Your task to perform on an android device: Add "razer blade" to the cart on walmart Image 0: 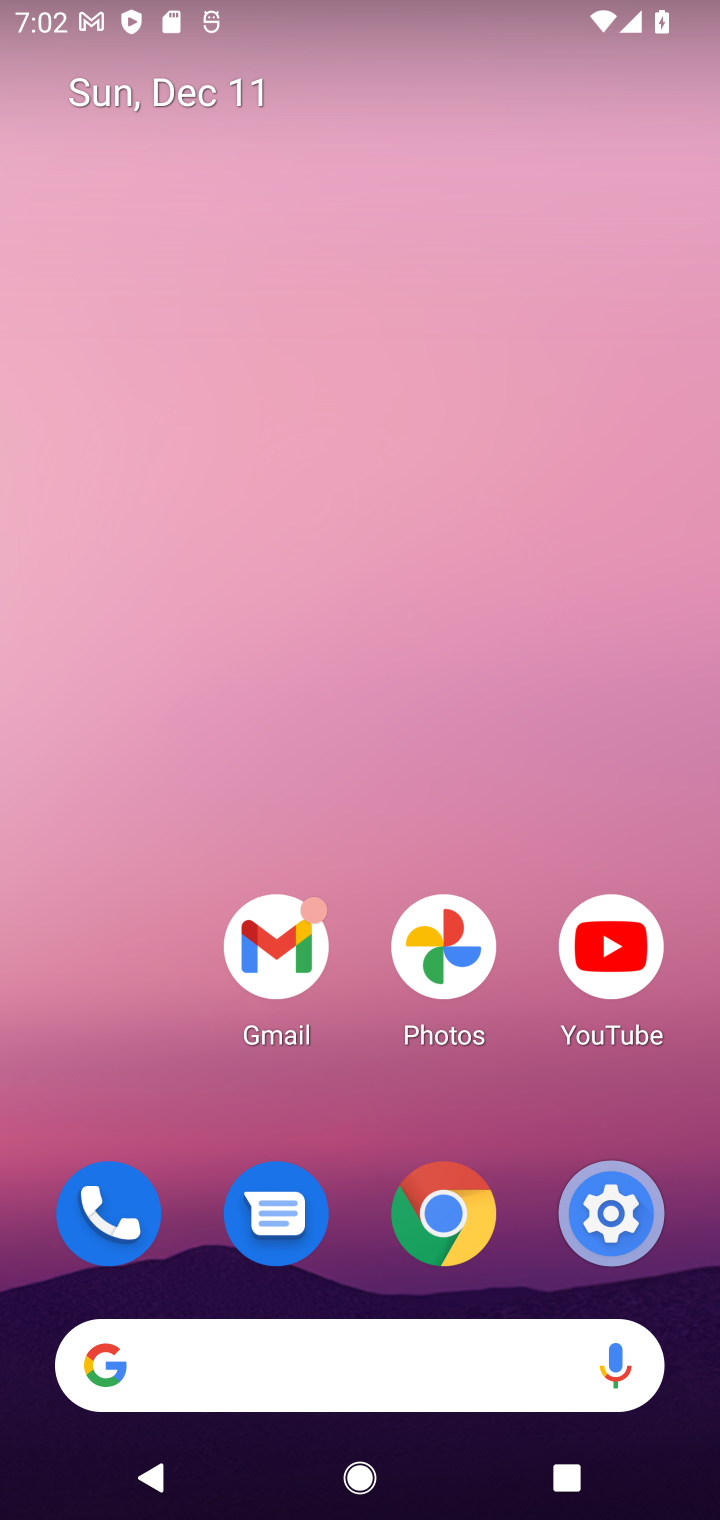
Step 0: click (437, 1327)
Your task to perform on an android device: Add "razer blade" to the cart on walmart Image 1: 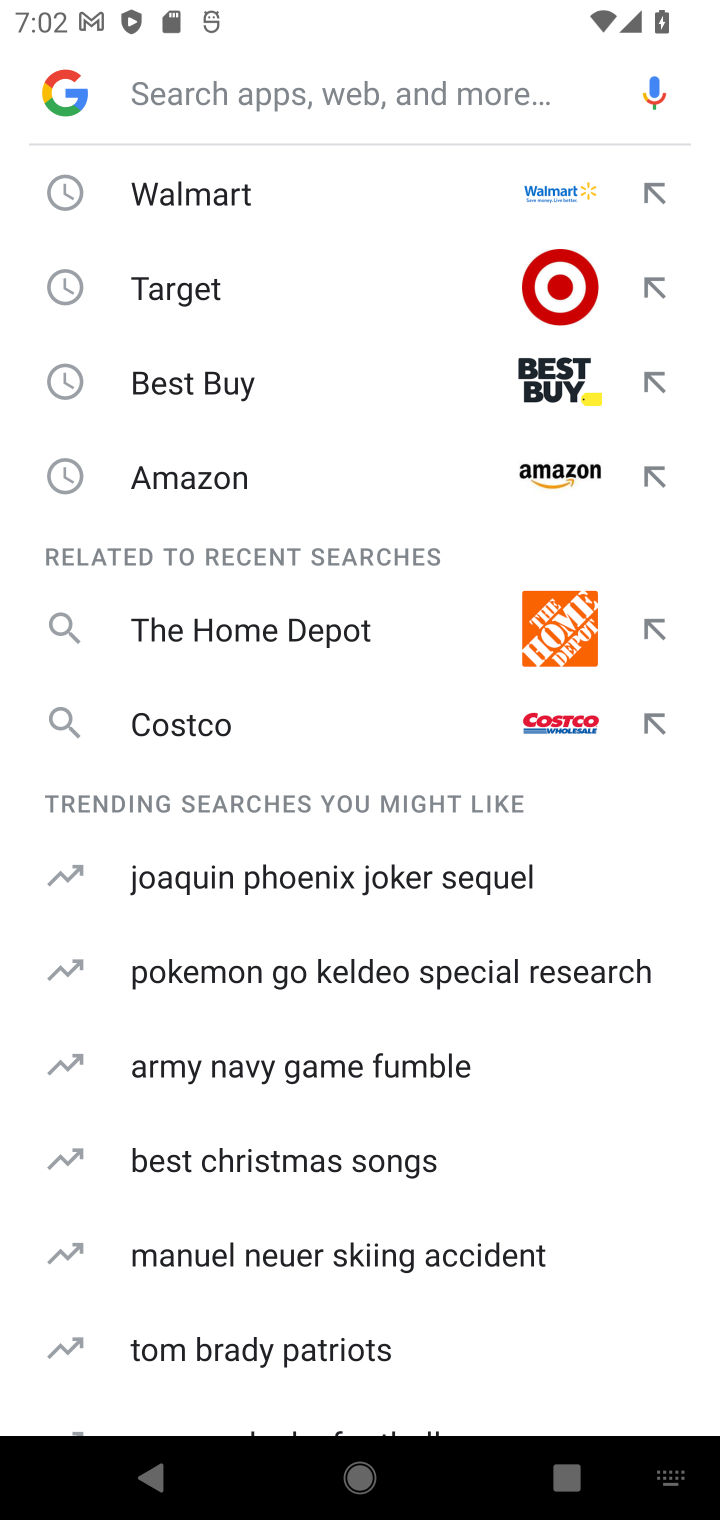
Step 1: click (162, 224)
Your task to perform on an android device: Add "razer blade" to the cart on walmart Image 2: 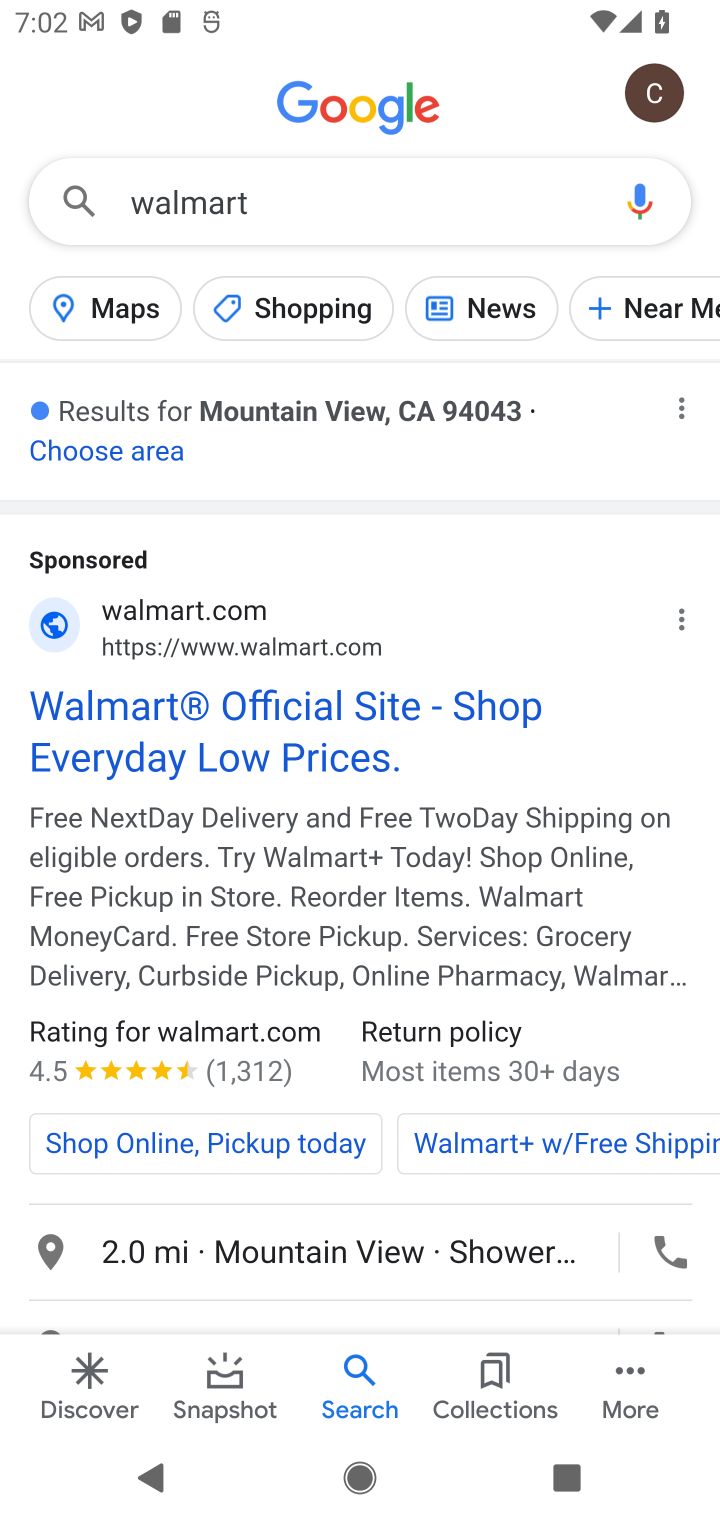
Step 2: click (247, 711)
Your task to perform on an android device: Add "razer blade" to the cart on walmart Image 3: 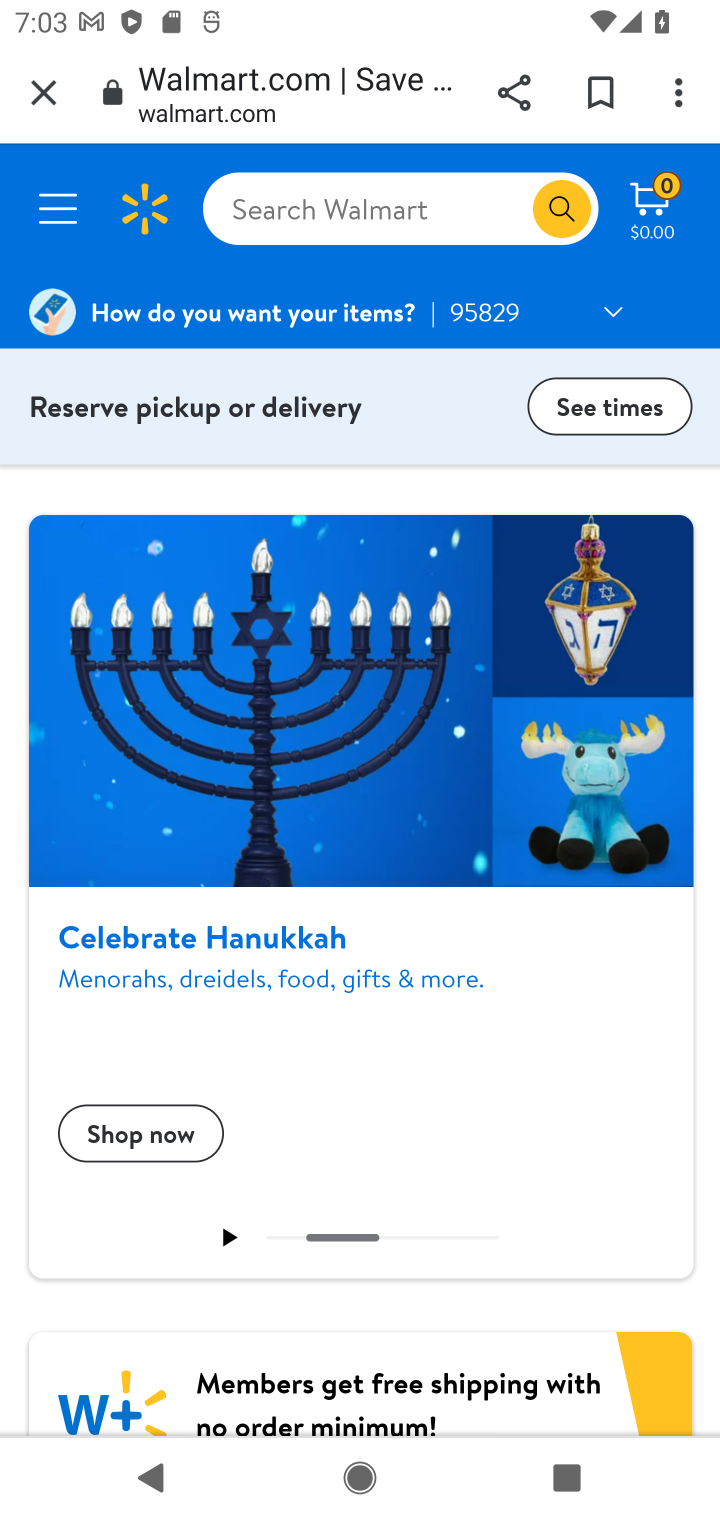
Step 3: click (369, 211)
Your task to perform on an android device: Add "razer blade" to the cart on walmart Image 4: 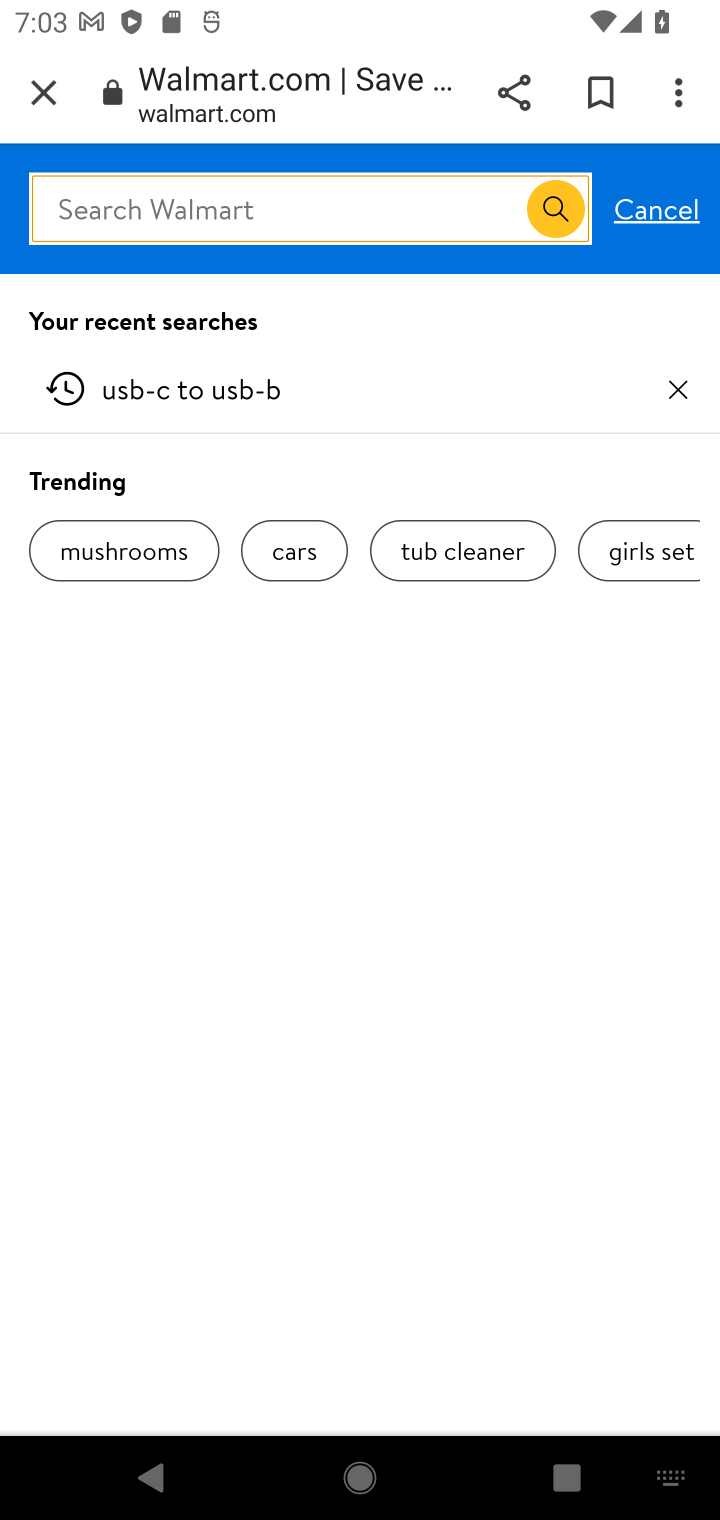
Step 4: type "razer blade"
Your task to perform on an android device: Add "razer blade" to the cart on walmart Image 5: 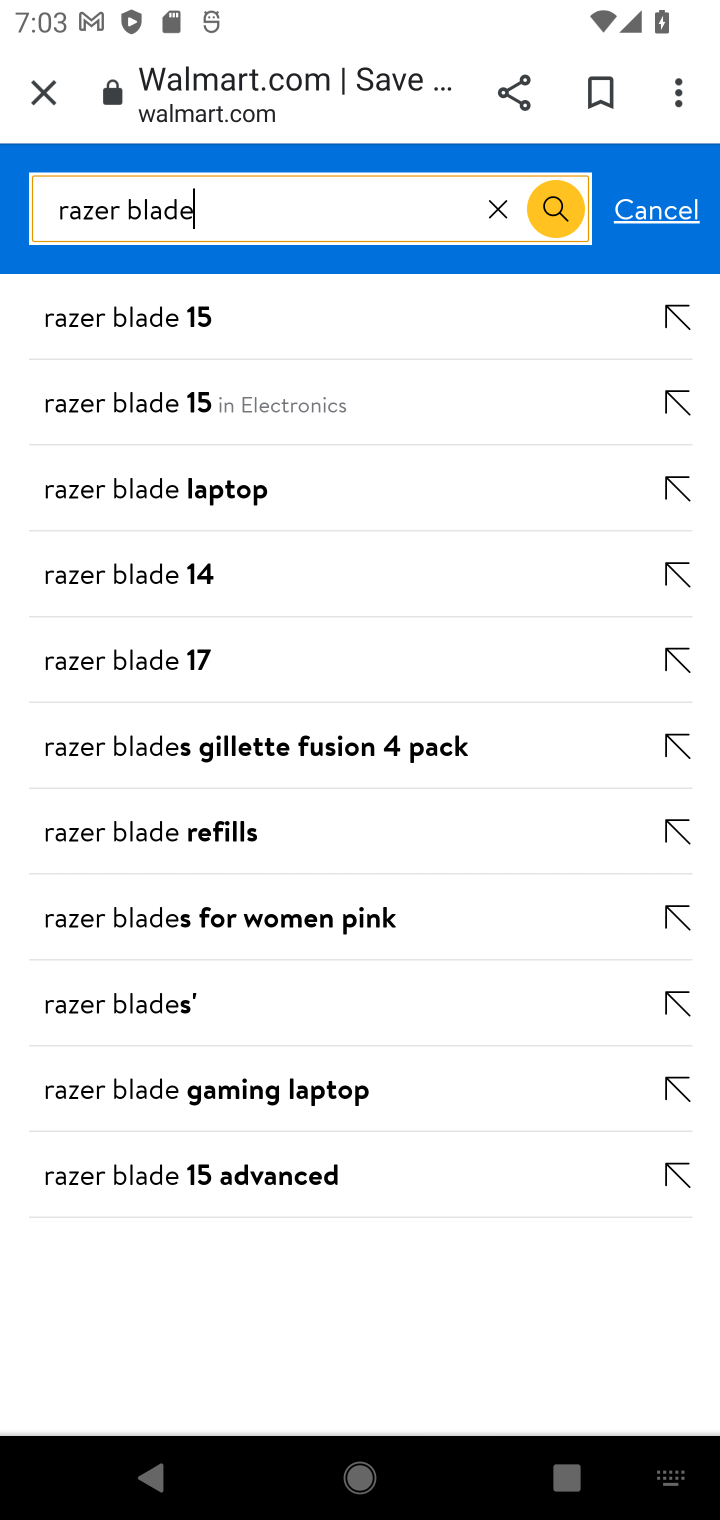
Step 5: click (547, 226)
Your task to perform on an android device: Add "razer blade" to the cart on walmart Image 6: 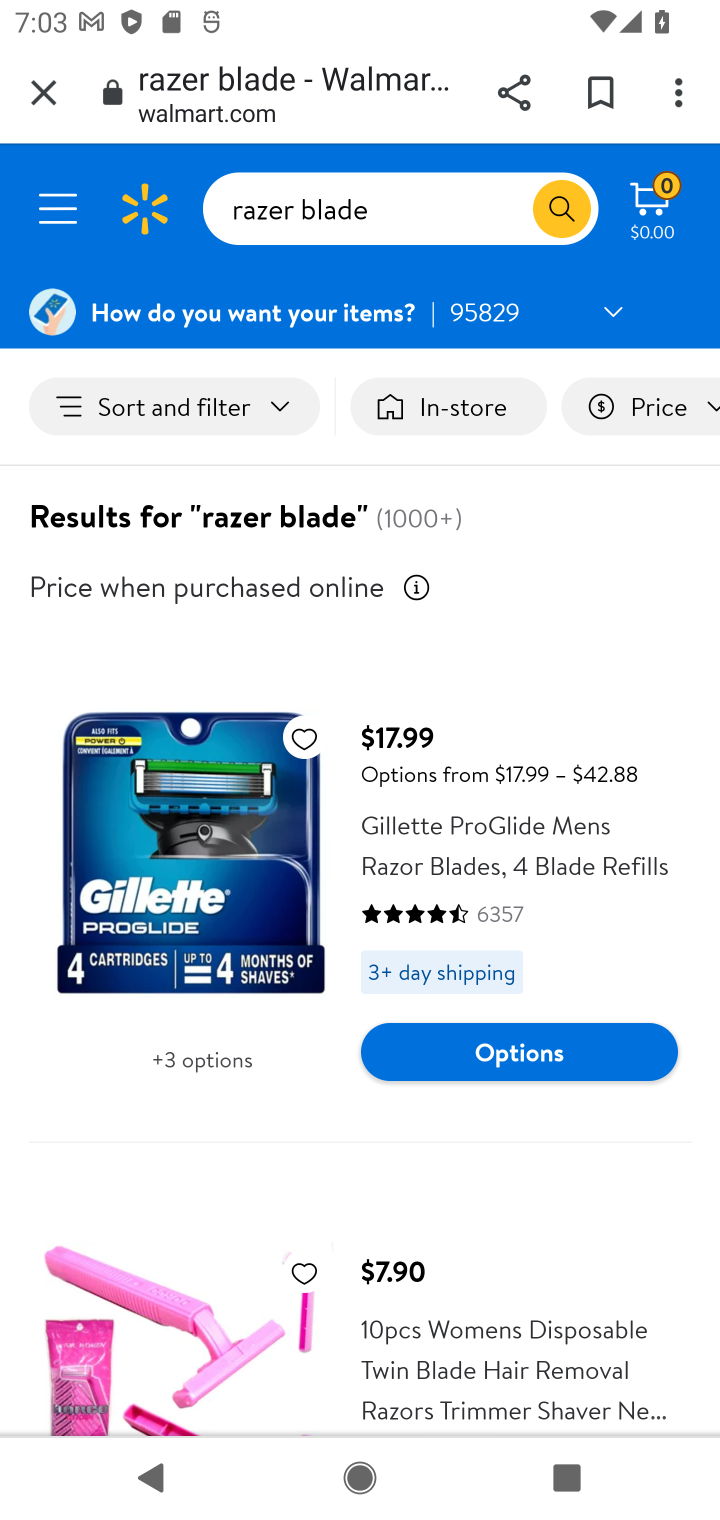
Step 6: click (490, 1032)
Your task to perform on an android device: Add "razer blade" to the cart on walmart Image 7: 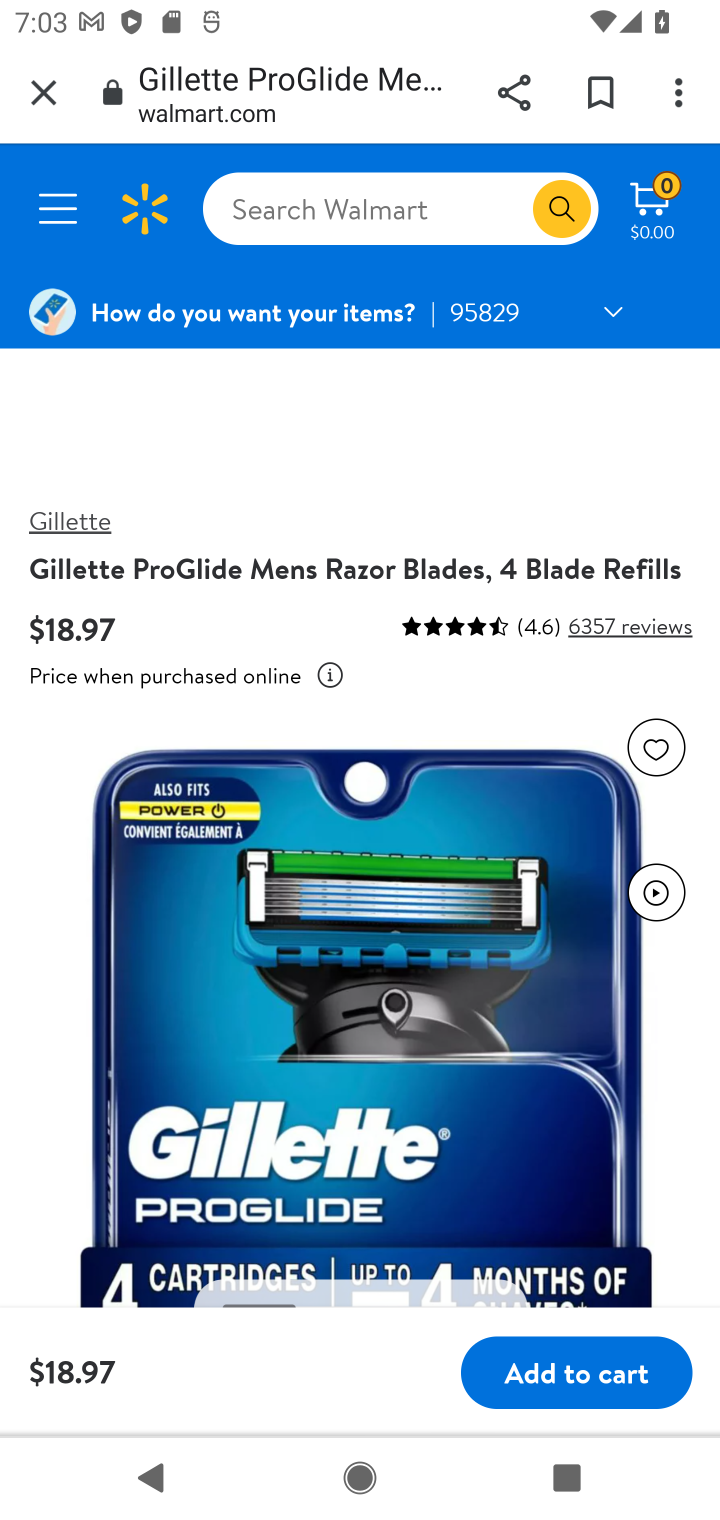
Step 7: click (535, 1391)
Your task to perform on an android device: Add "razer blade" to the cart on walmart Image 8: 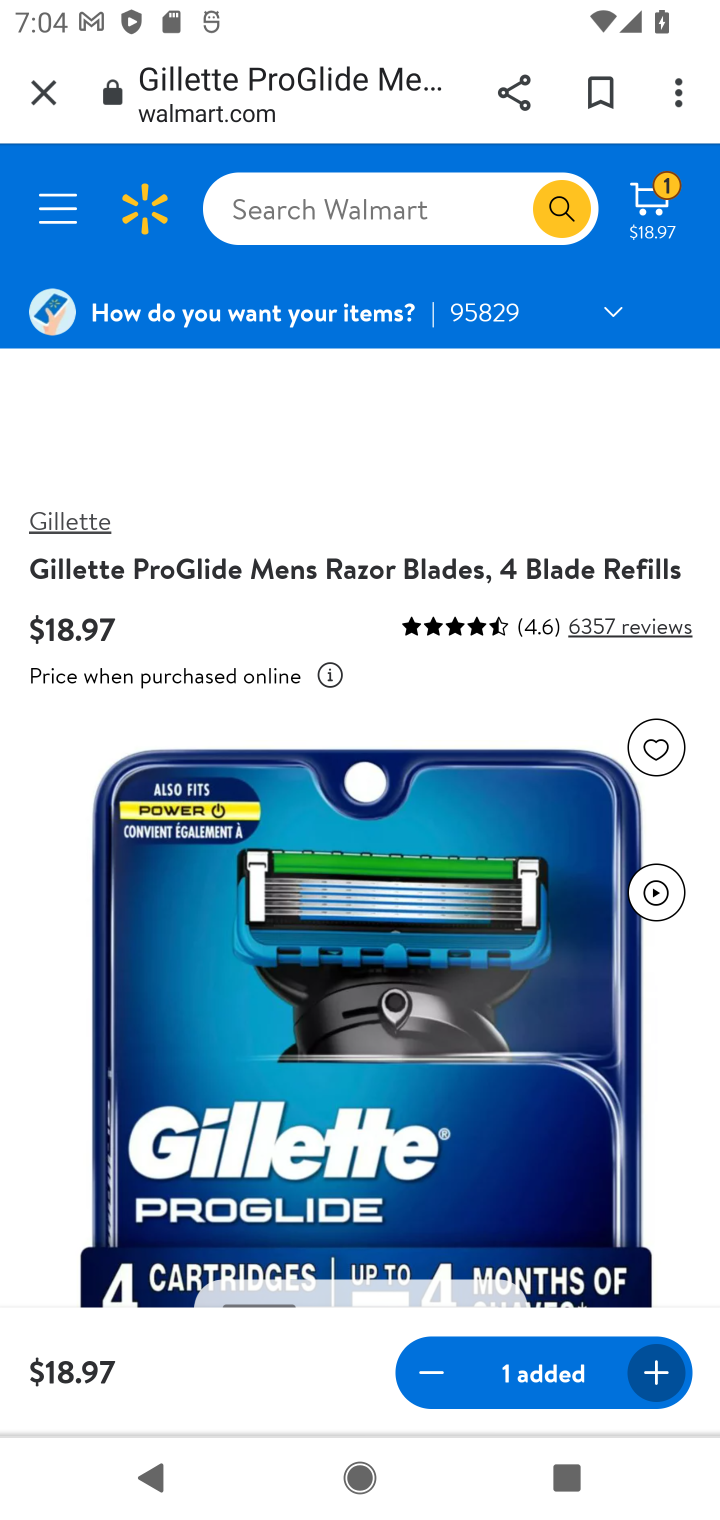
Step 8: task complete